Your task to perform on an android device: turn off wifi Image 0: 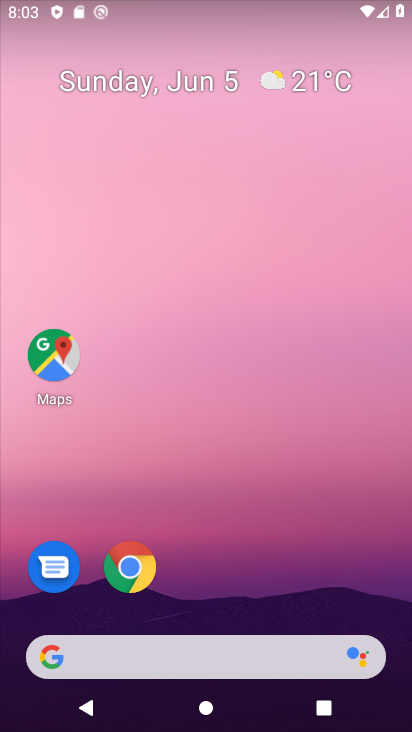
Step 0: drag from (207, 596) to (243, 323)
Your task to perform on an android device: turn off wifi Image 1: 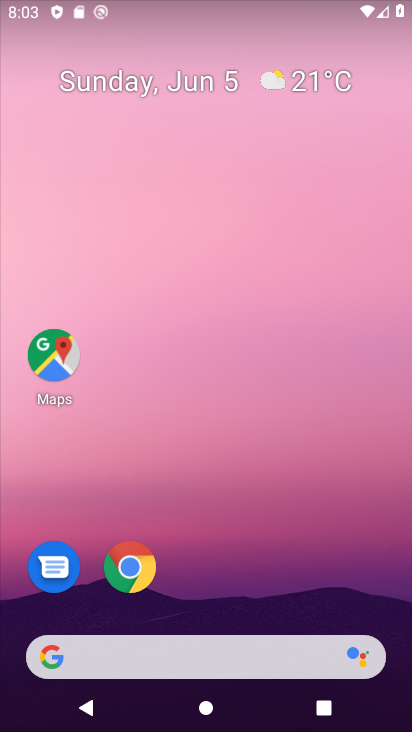
Step 1: drag from (218, 615) to (256, 254)
Your task to perform on an android device: turn off wifi Image 2: 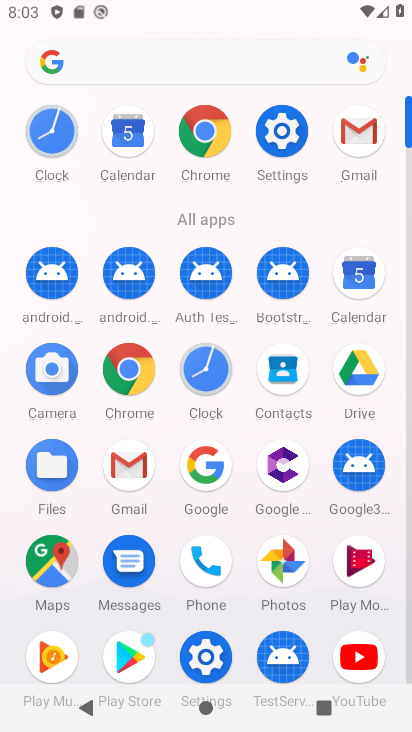
Step 2: click (289, 148)
Your task to perform on an android device: turn off wifi Image 3: 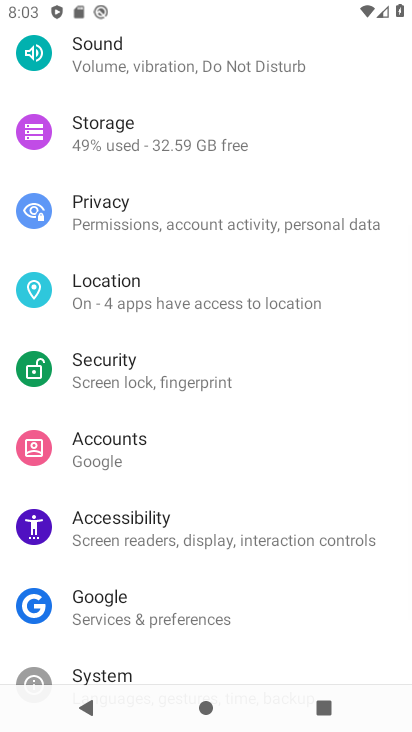
Step 3: drag from (273, 147) to (238, 607)
Your task to perform on an android device: turn off wifi Image 4: 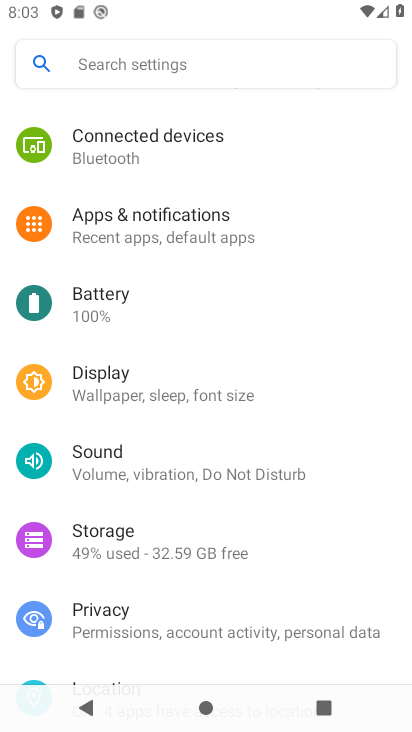
Step 4: drag from (226, 207) to (189, 672)
Your task to perform on an android device: turn off wifi Image 5: 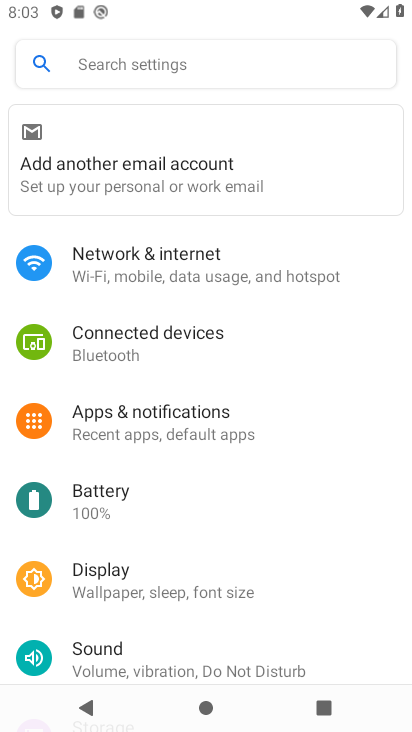
Step 5: click (165, 263)
Your task to perform on an android device: turn off wifi Image 6: 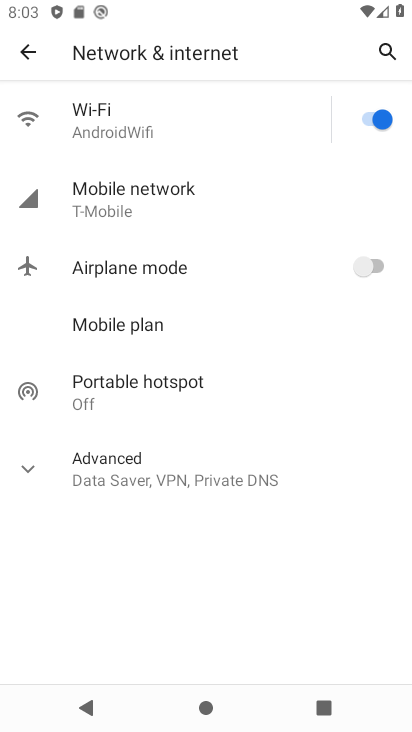
Step 6: click (362, 117)
Your task to perform on an android device: turn off wifi Image 7: 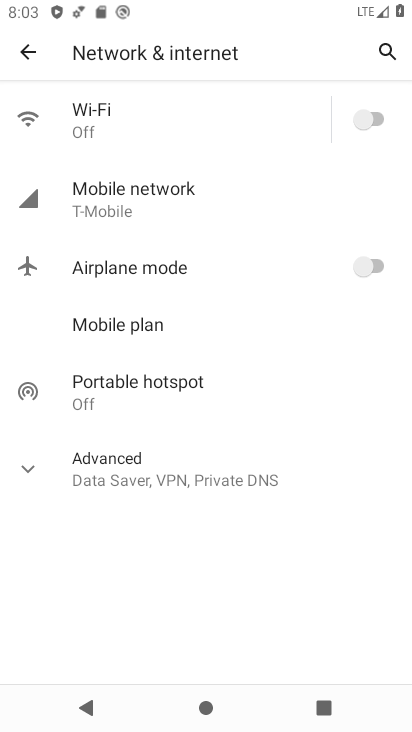
Step 7: task complete